Your task to perform on an android device: Open Youtube and go to the subscriptions tab Image 0: 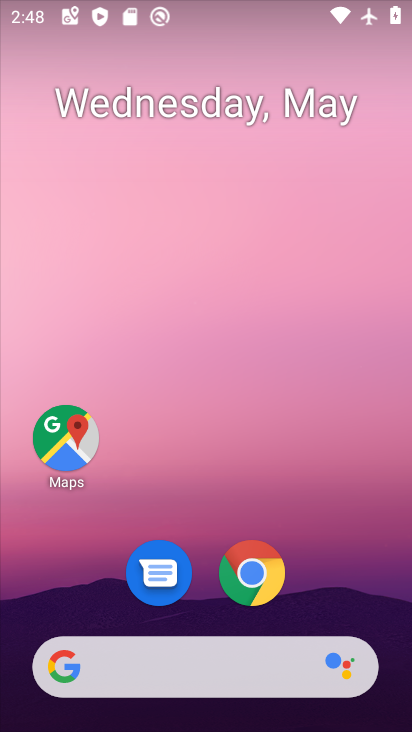
Step 0: drag from (307, 617) to (356, 0)
Your task to perform on an android device: Open Youtube and go to the subscriptions tab Image 1: 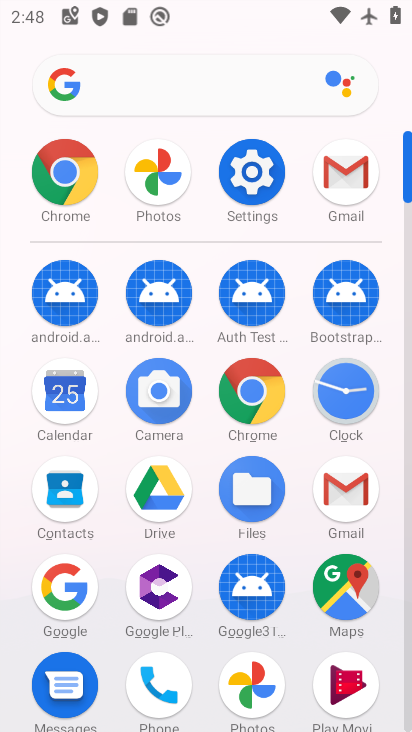
Step 1: drag from (295, 642) to (295, 357)
Your task to perform on an android device: Open Youtube and go to the subscriptions tab Image 2: 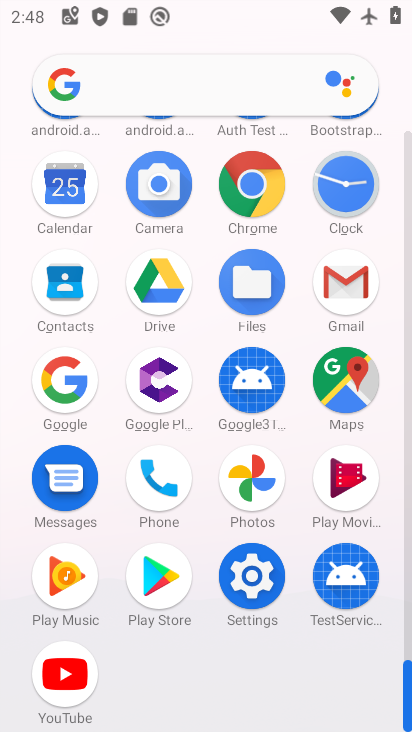
Step 2: click (49, 680)
Your task to perform on an android device: Open Youtube and go to the subscriptions tab Image 3: 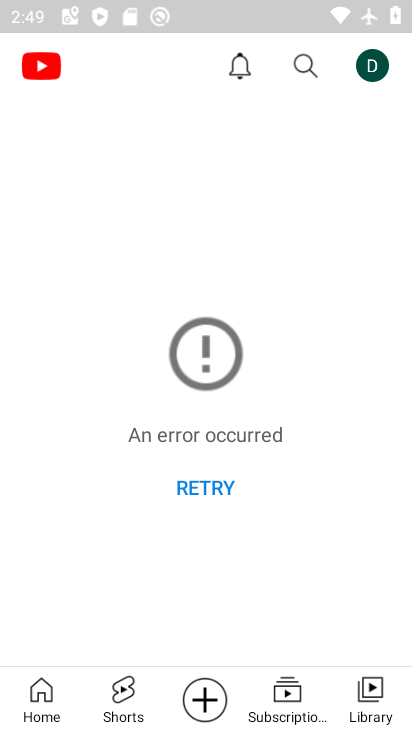
Step 3: click (281, 686)
Your task to perform on an android device: Open Youtube and go to the subscriptions tab Image 4: 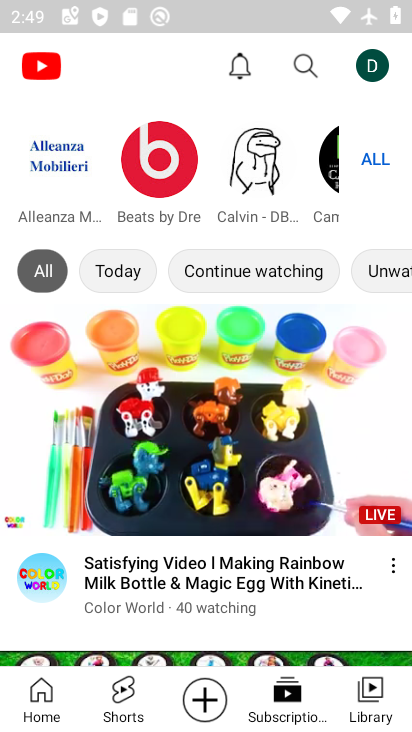
Step 4: task complete